Your task to perform on an android device: Go to privacy settings Image 0: 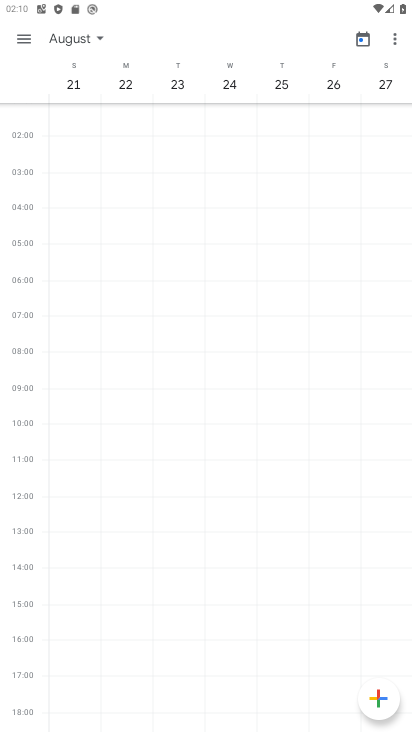
Step 0: press home button
Your task to perform on an android device: Go to privacy settings Image 1: 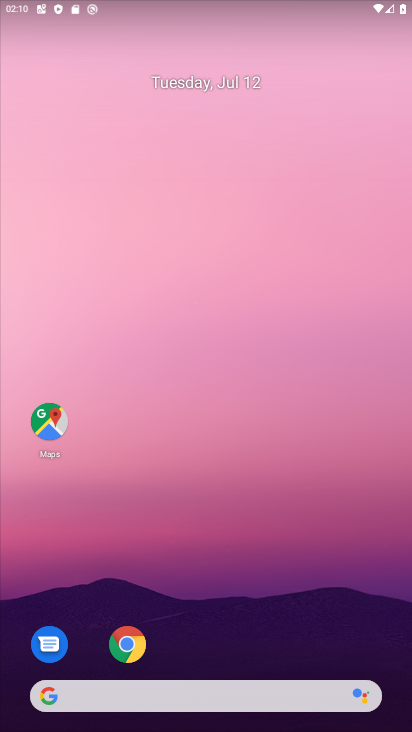
Step 1: drag from (229, 679) to (191, 86)
Your task to perform on an android device: Go to privacy settings Image 2: 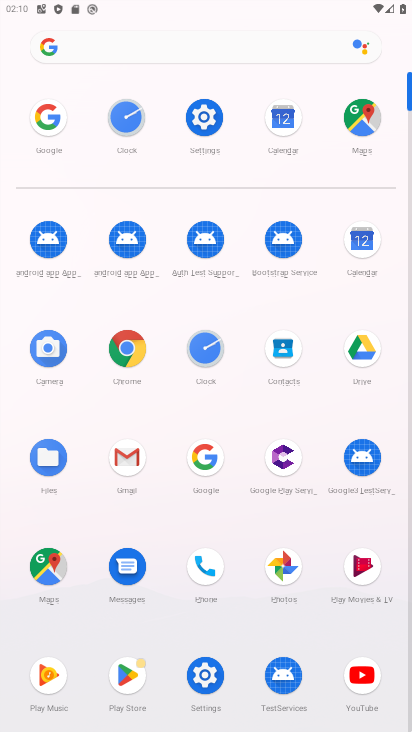
Step 2: click (200, 115)
Your task to perform on an android device: Go to privacy settings Image 3: 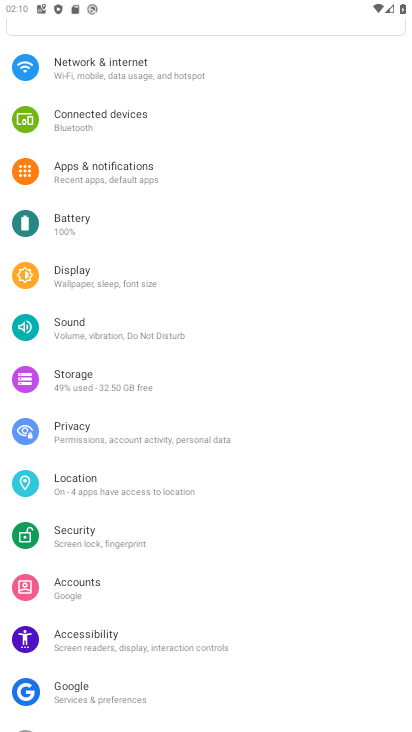
Step 3: click (112, 429)
Your task to perform on an android device: Go to privacy settings Image 4: 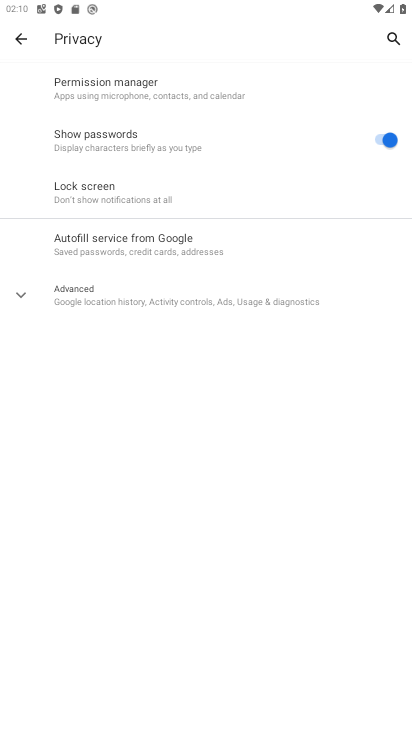
Step 4: click (104, 294)
Your task to perform on an android device: Go to privacy settings Image 5: 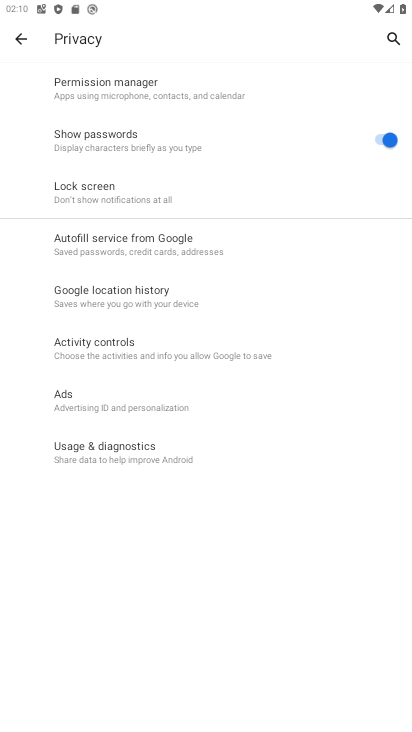
Step 5: task complete